Your task to perform on an android device: change the clock style Image 0: 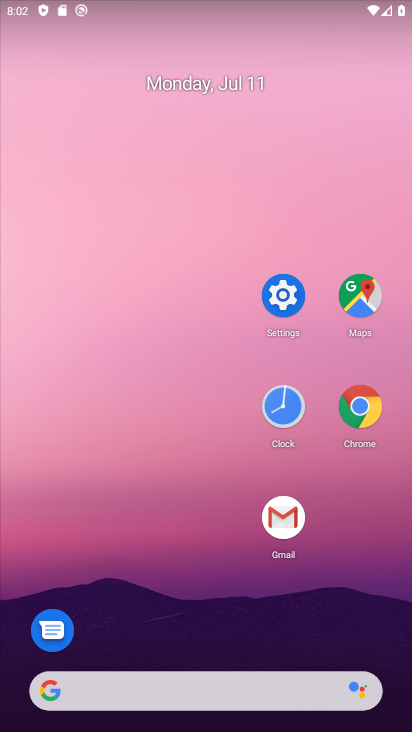
Step 0: click (287, 406)
Your task to perform on an android device: change the clock style Image 1: 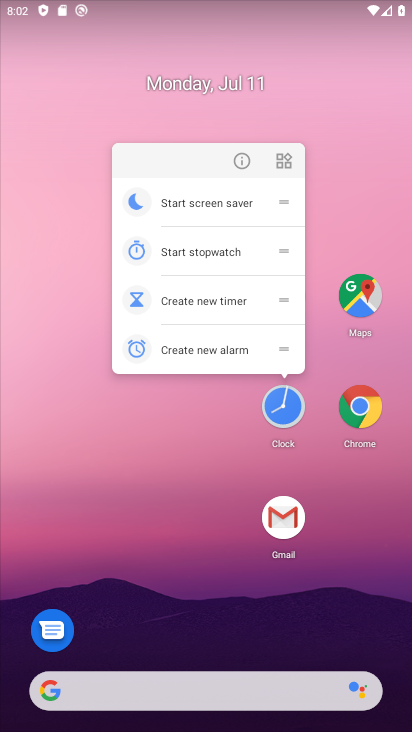
Step 1: click (294, 417)
Your task to perform on an android device: change the clock style Image 2: 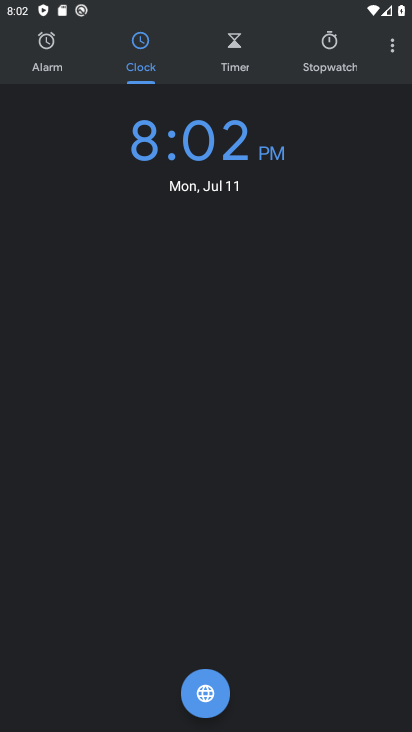
Step 2: click (398, 45)
Your task to perform on an android device: change the clock style Image 3: 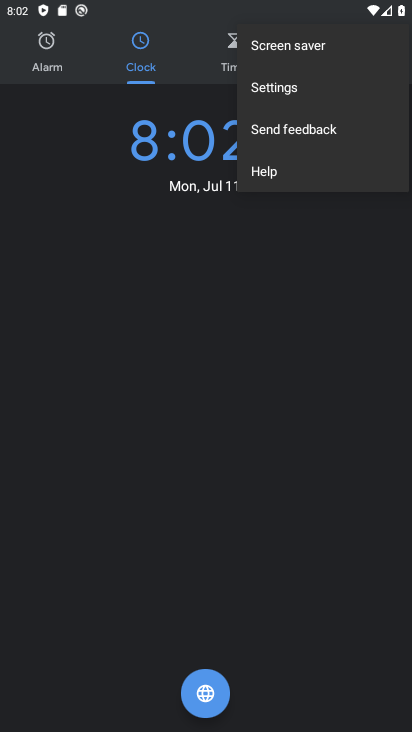
Step 3: click (274, 88)
Your task to perform on an android device: change the clock style Image 4: 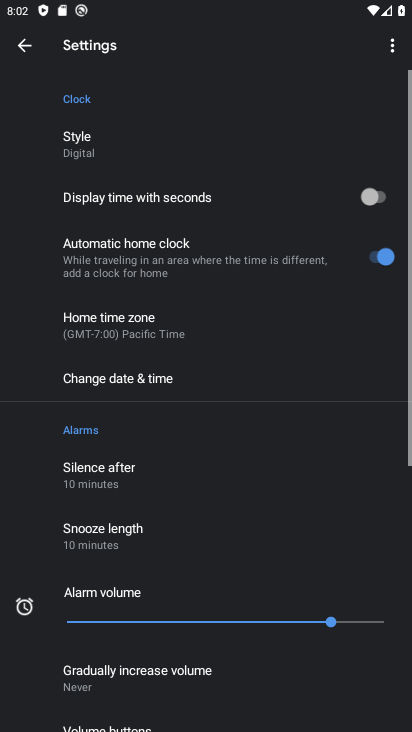
Step 4: click (87, 143)
Your task to perform on an android device: change the clock style Image 5: 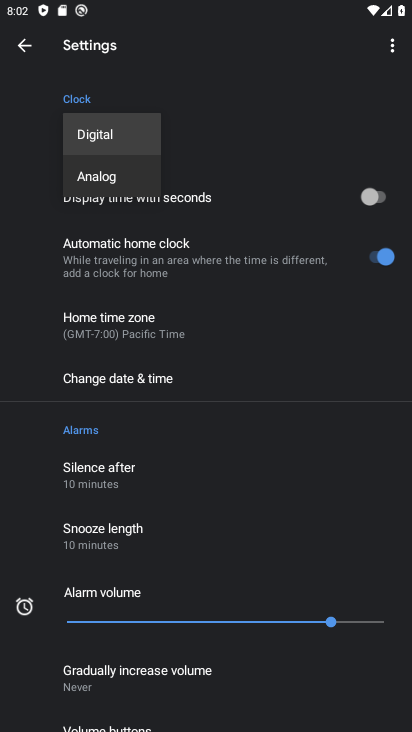
Step 5: click (128, 187)
Your task to perform on an android device: change the clock style Image 6: 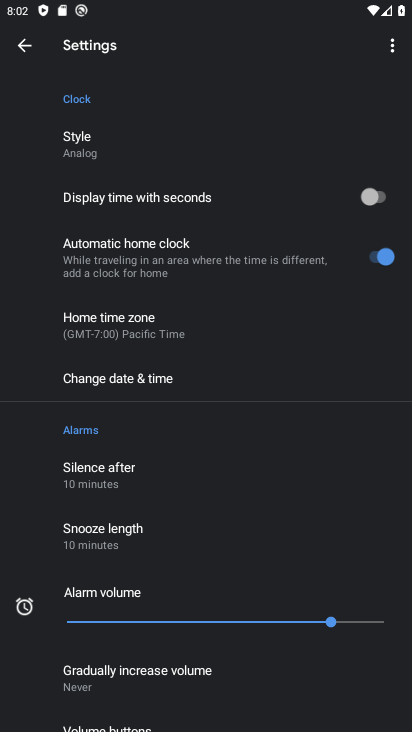
Step 6: task complete